Your task to perform on an android device: toggle translation in the chrome app Image 0: 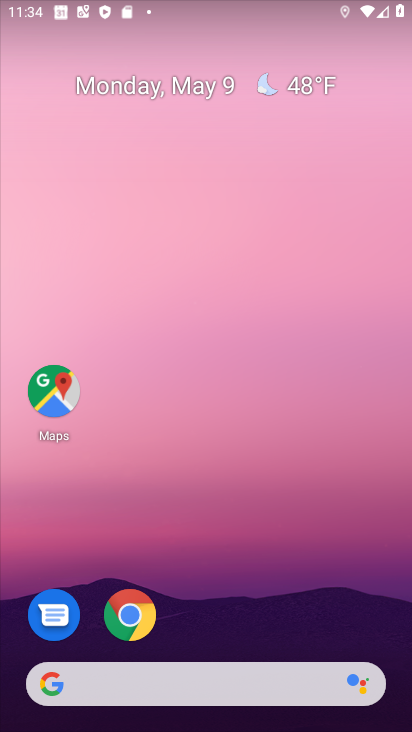
Step 0: click (132, 612)
Your task to perform on an android device: toggle translation in the chrome app Image 1: 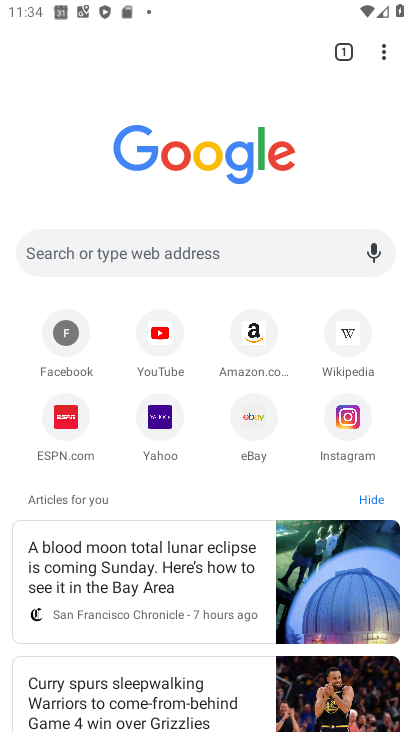
Step 1: click (385, 54)
Your task to perform on an android device: toggle translation in the chrome app Image 2: 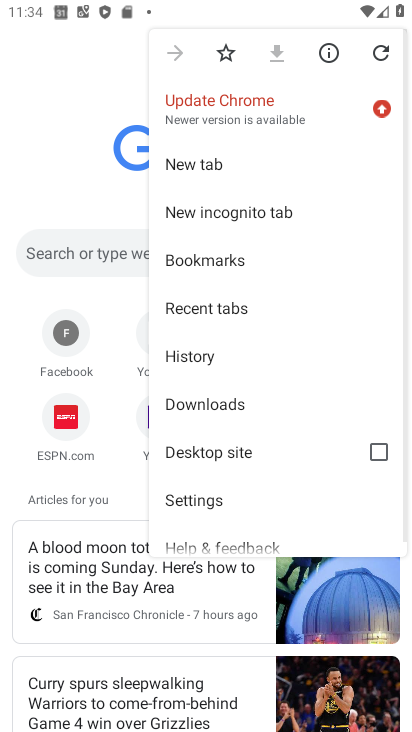
Step 2: click (242, 492)
Your task to perform on an android device: toggle translation in the chrome app Image 3: 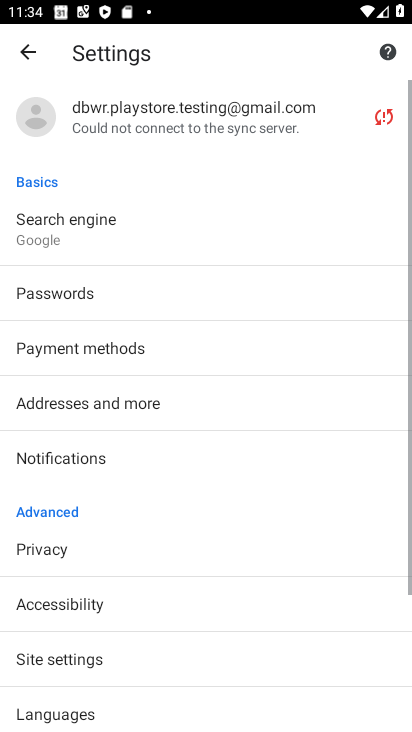
Step 3: drag from (180, 618) to (216, 247)
Your task to perform on an android device: toggle translation in the chrome app Image 4: 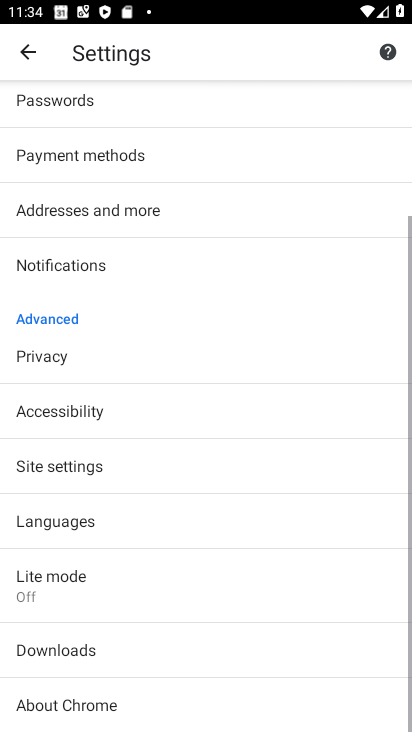
Step 4: click (122, 531)
Your task to perform on an android device: toggle translation in the chrome app Image 5: 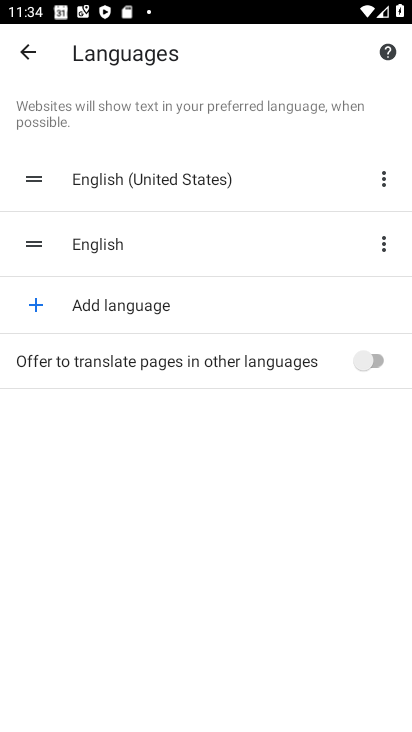
Step 5: click (360, 357)
Your task to perform on an android device: toggle translation in the chrome app Image 6: 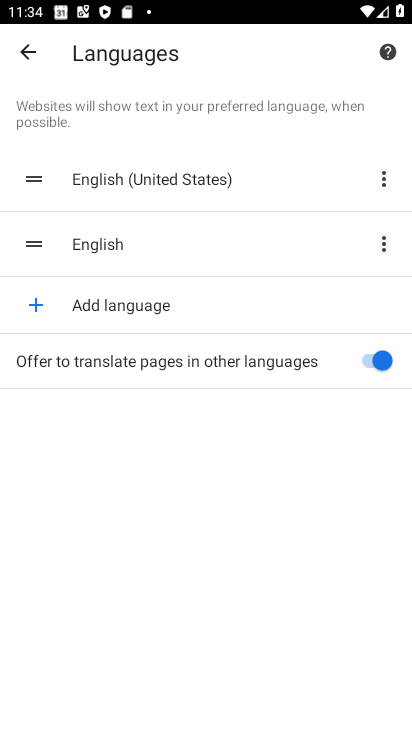
Step 6: task complete